Your task to perform on an android device: check data usage Image 0: 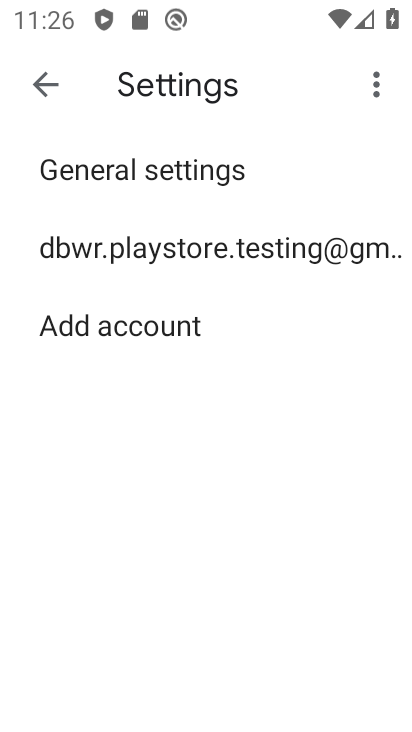
Step 0: press home button
Your task to perform on an android device: check data usage Image 1: 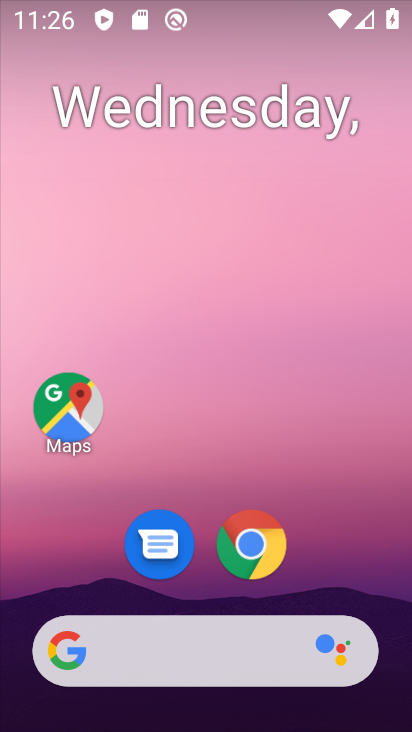
Step 1: drag from (289, 590) to (288, 67)
Your task to perform on an android device: check data usage Image 2: 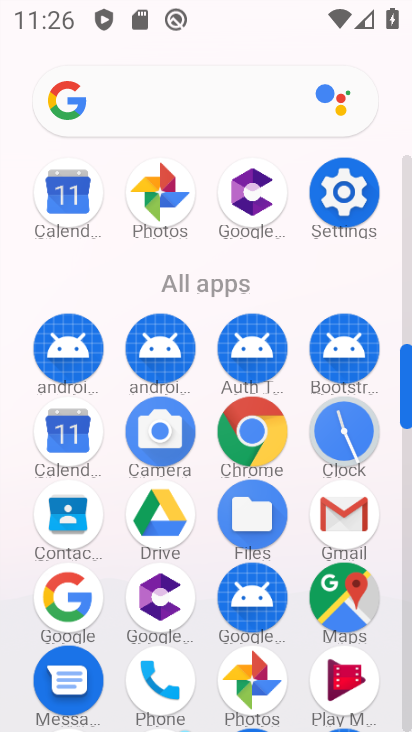
Step 2: click (360, 233)
Your task to perform on an android device: check data usage Image 3: 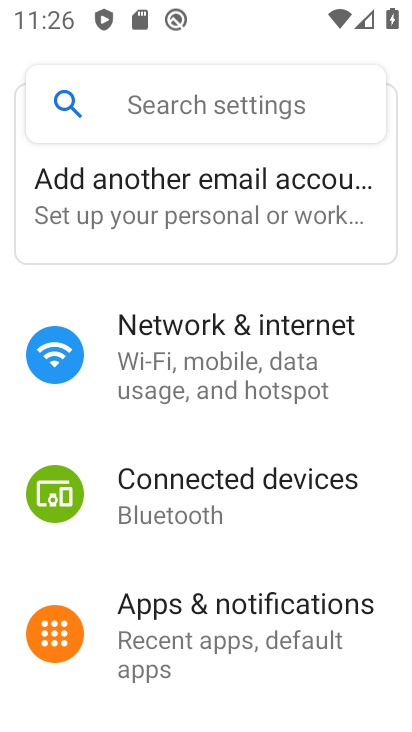
Step 3: click (254, 378)
Your task to perform on an android device: check data usage Image 4: 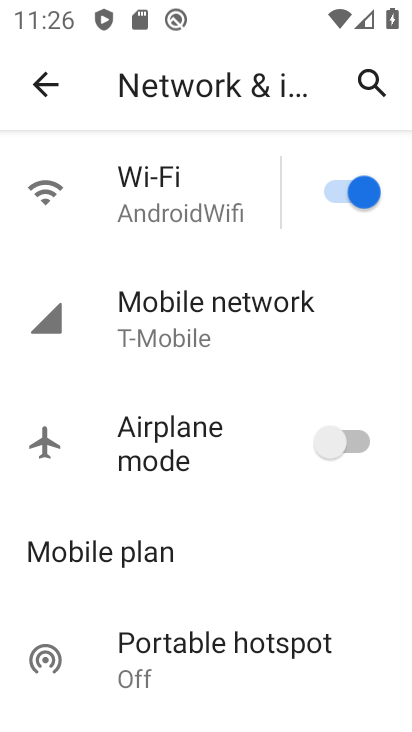
Step 4: click (257, 305)
Your task to perform on an android device: check data usage Image 5: 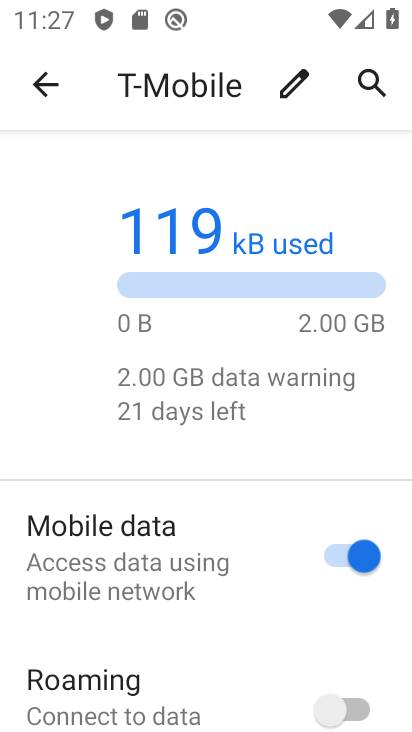
Step 5: task complete